Your task to perform on an android device: Go to Google maps Image 0: 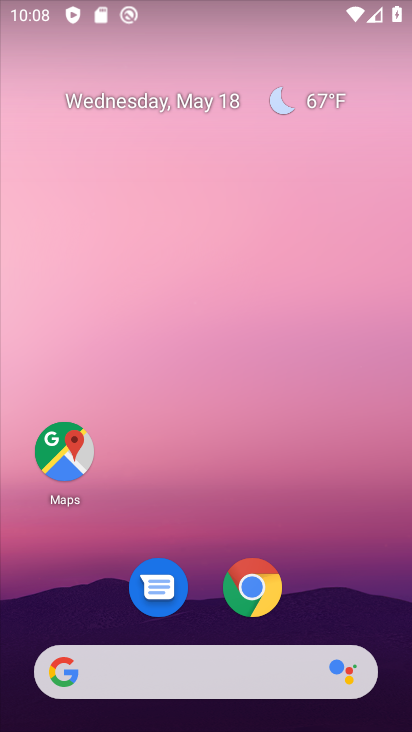
Step 0: click (91, 455)
Your task to perform on an android device: Go to Google maps Image 1: 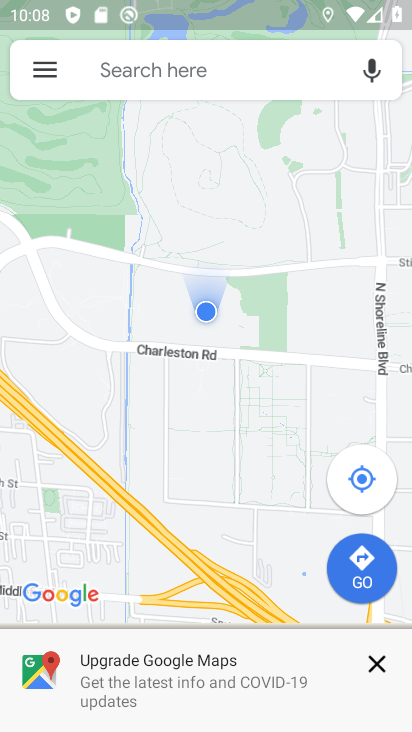
Step 1: task complete